Your task to perform on an android device: Go to Wikipedia Image 0: 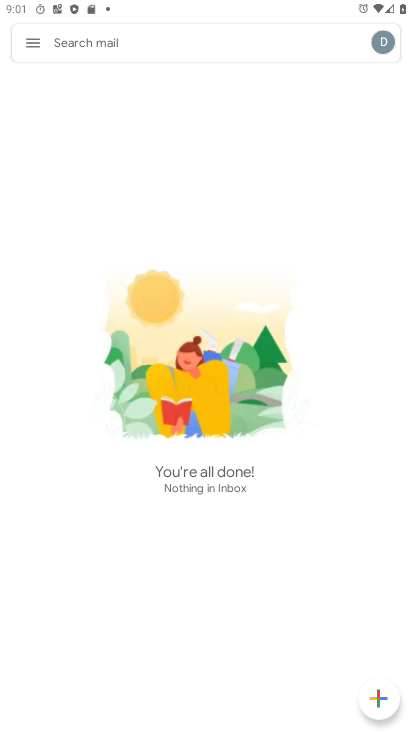
Step 0: press home button
Your task to perform on an android device: Go to Wikipedia Image 1: 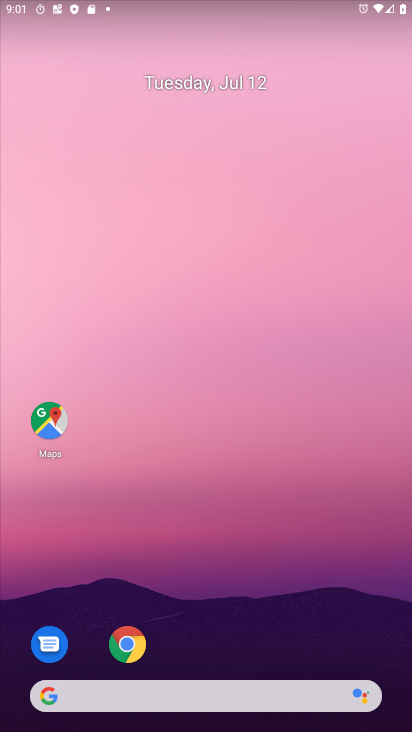
Step 1: click (117, 710)
Your task to perform on an android device: Go to Wikipedia Image 2: 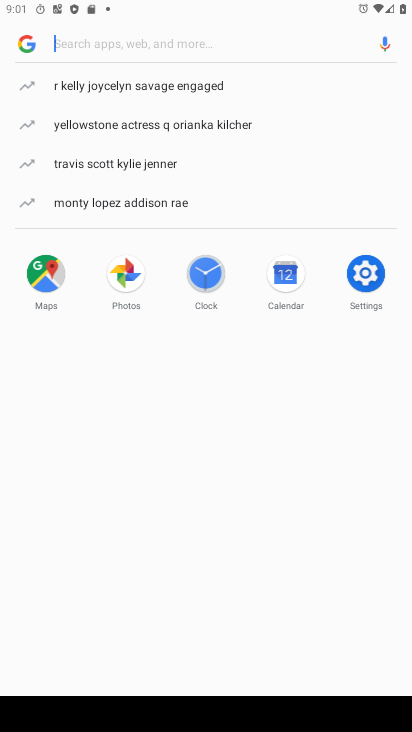
Step 2: type "Wikipedia"
Your task to perform on an android device: Go to Wikipedia Image 3: 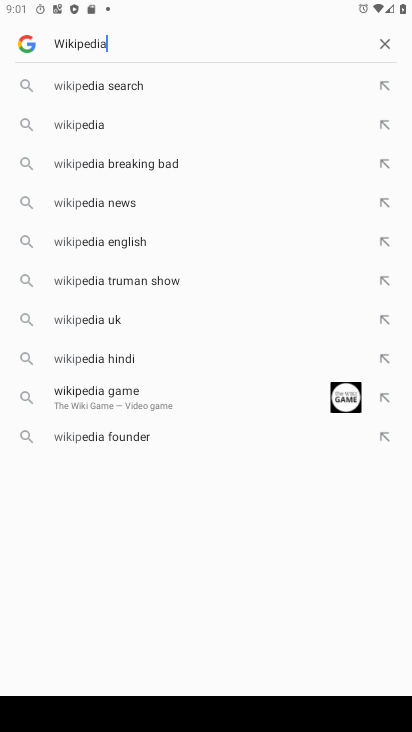
Step 3: type ""
Your task to perform on an android device: Go to Wikipedia Image 4: 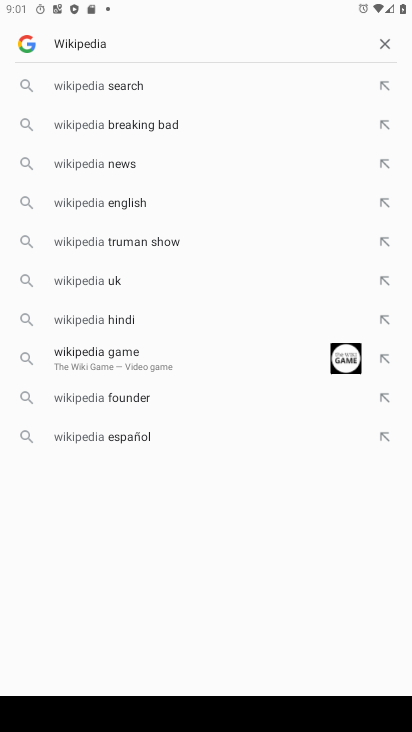
Step 4: type "  "
Your task to perform on an android device: Go to Wikipedia Image 5: 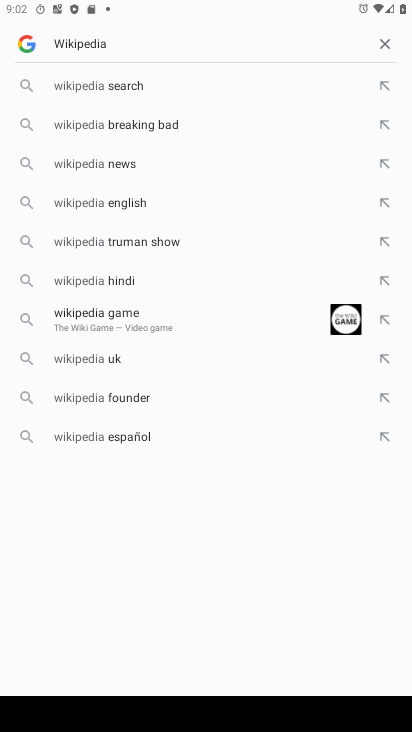
Step 5: task complete